Your task to perform on an android device: check data usage Image 0: 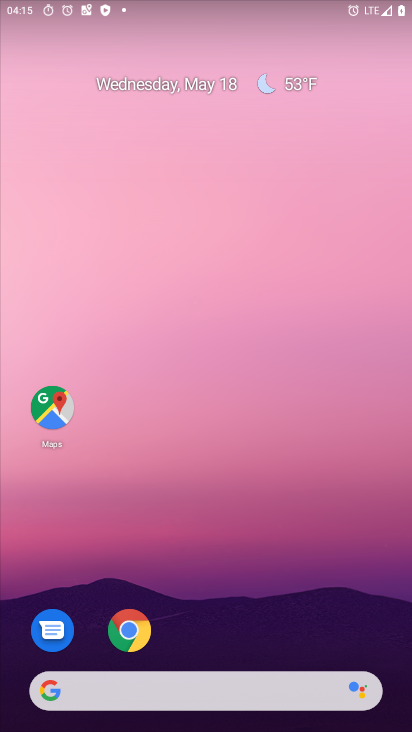
Step 0: drag from (227, 723) to (218, 257)
Your task to perform on an android device: check data usage Image 1: 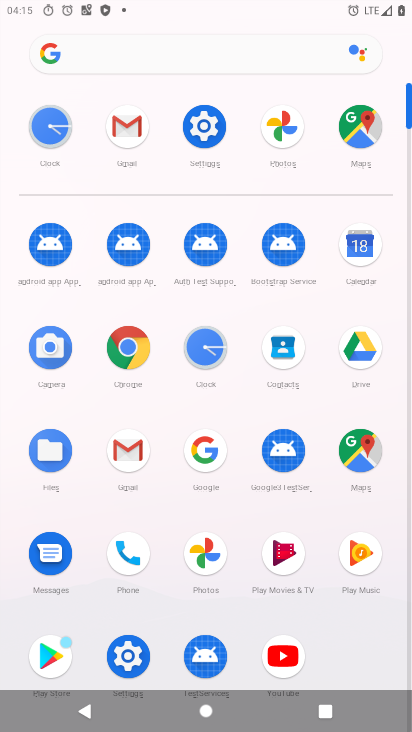
Step 1: click (196, 131)
Your task to perform on an android device: check data usage Image 2: 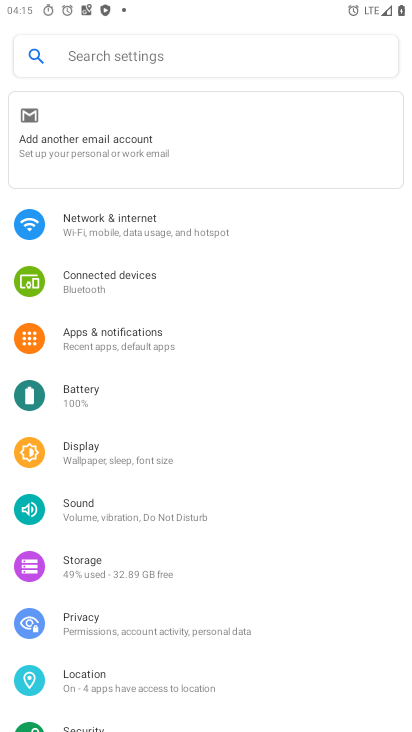
Step 2: click (109, 231)
Your task to perform on an android device: check data usage Image 3: 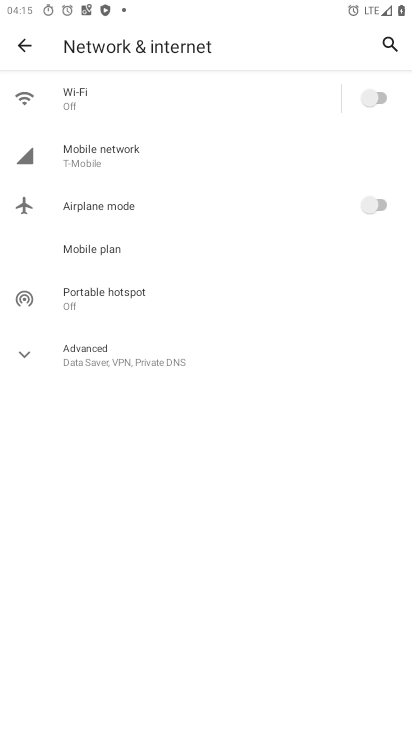
Step 3: click (91, 148)
Your task to perform on an android device: check data usage Image 4: 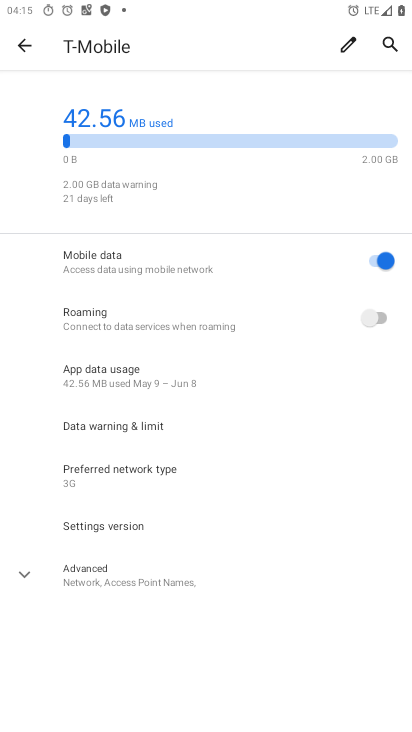
Step 4: click (106, 375)
Your task to perform on an android device: check data usage Image 5: 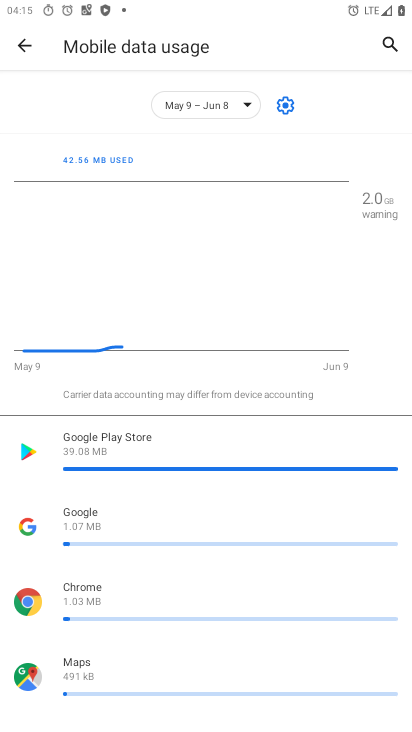
Step 5: task complete